Your task to perform on an android device: Open internet settings Image 0: 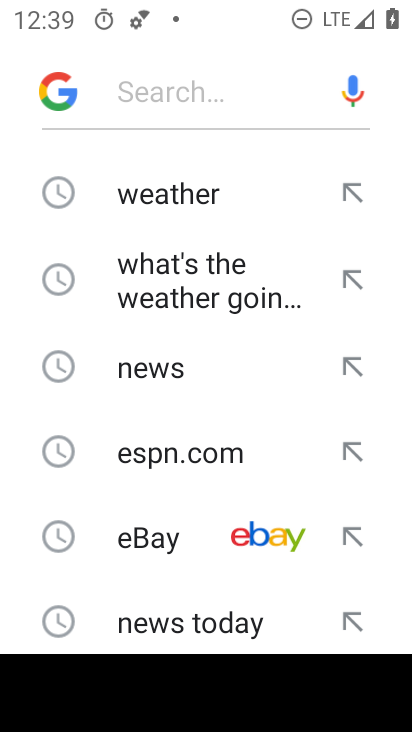
Step 0: press home button
Your task to perform on an android device: Open internet settings Image 1: 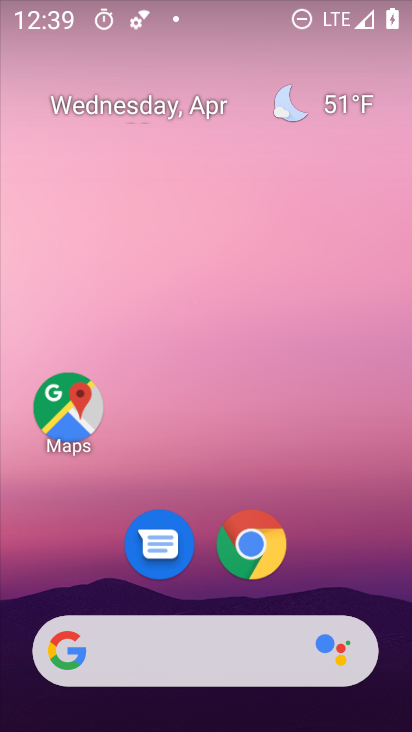
Step 1: drag from (346, 550) to (347, 144)
Your task to perform on an android device: Open internet settings Image 2: 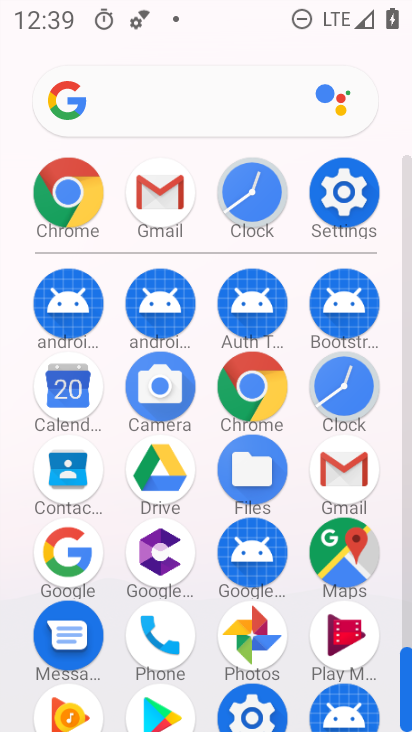
Step 2: click (348, 200)
Your task to perform on an android device: Open internet settings Image 3: 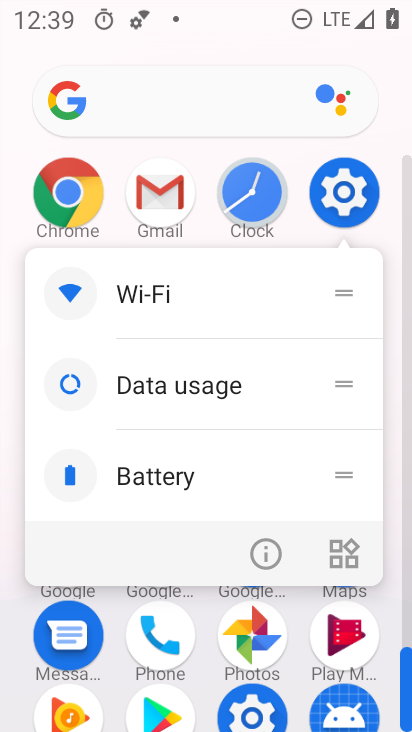
Step 3: click (331, 196)
Your task to perform on an android device: Open internet settings Image 4: 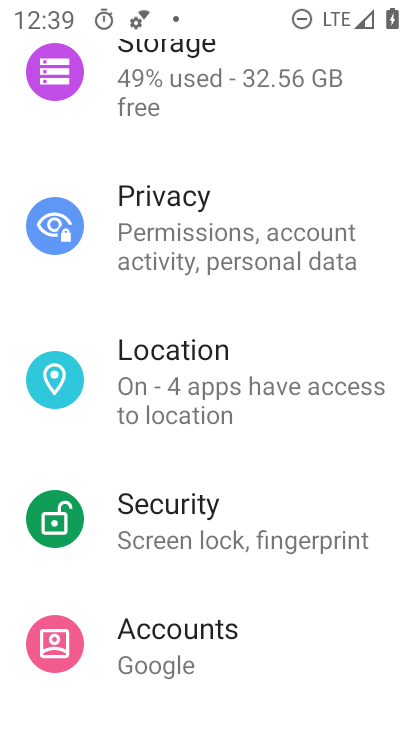
Step 4: drag from (358, 528) to (358, 453)
Your task to perform on an android device: Open internet settings Image 5: 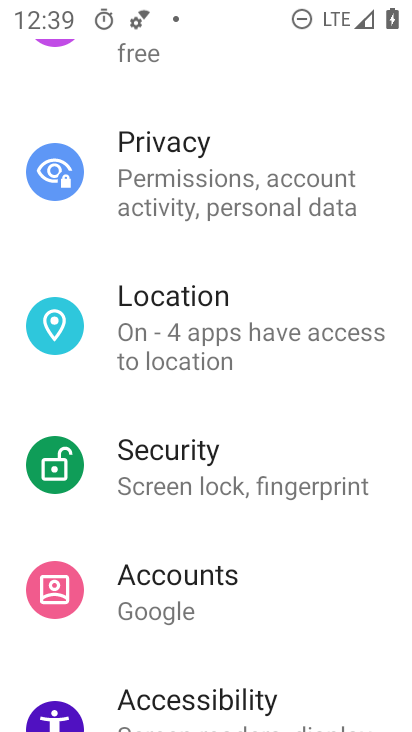
Step 5: drag from (359, 626) to (370, 438)
Your task to perform on an android device: Open internet settings Image 6: 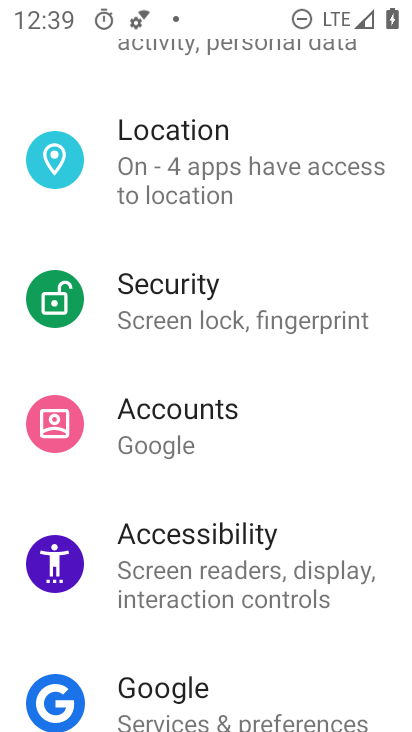
Step 6: drag from (371, 631) to (373, 441)
Your task to perform on an android device: Open internet settings Image 7: 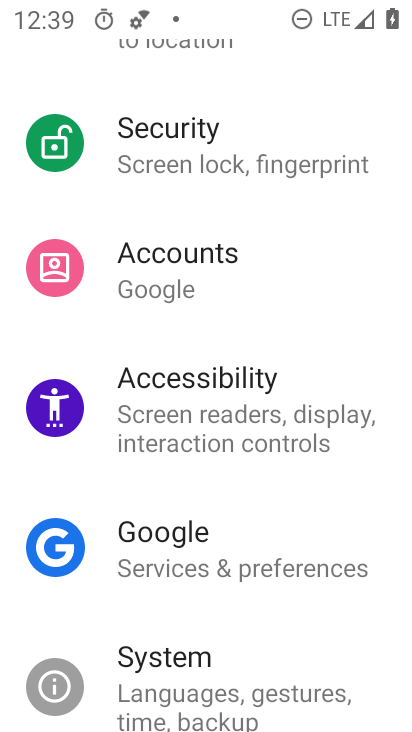
Step 7: drag from (362, 624) to (345, 439)
Your task to perform on an android device: Open internet settings Image 8: 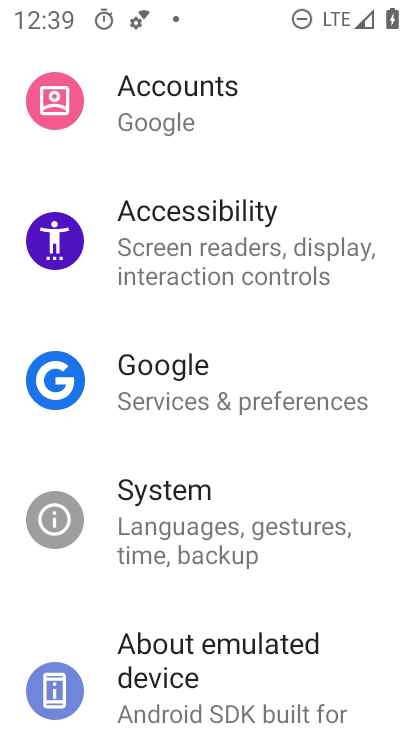
Step 8: drag from (359, 628) to (371, 455)
Your task to perform on an android device: Open internet settings Image 9: 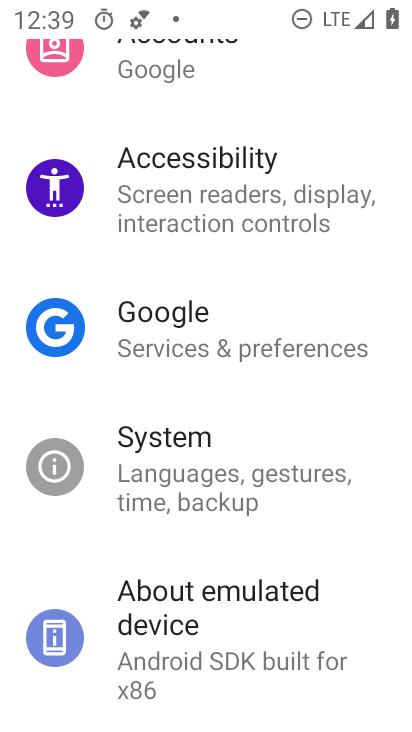
Step 9: drag from (374, 646) to (377, 429)
Your task to perform on an android device: Open internet settings Image 10: 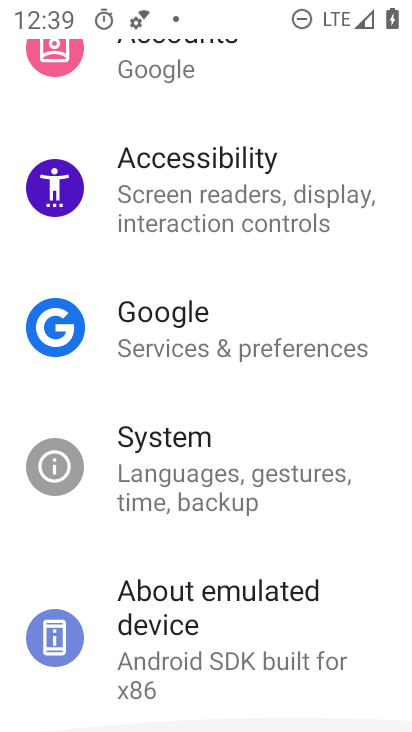
Step 10: drag from (377, 381) to (377, 507)
Your task to perform on an android device: Open internet settings Image 11: 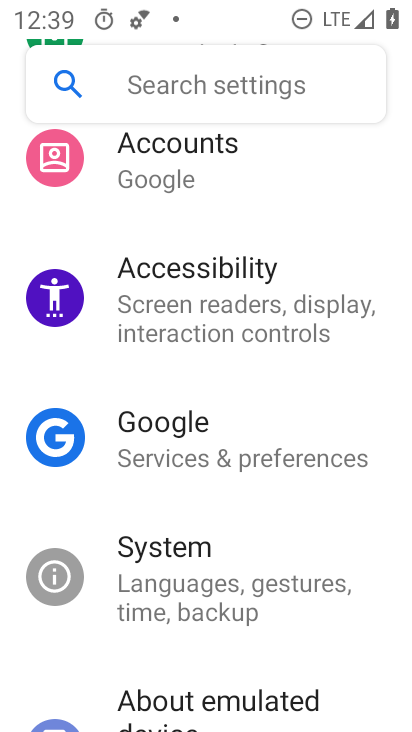
Step 11: drag from (379, 376) to (383, 526)
Your task to perform on an android device: Open internet settings Image 12: 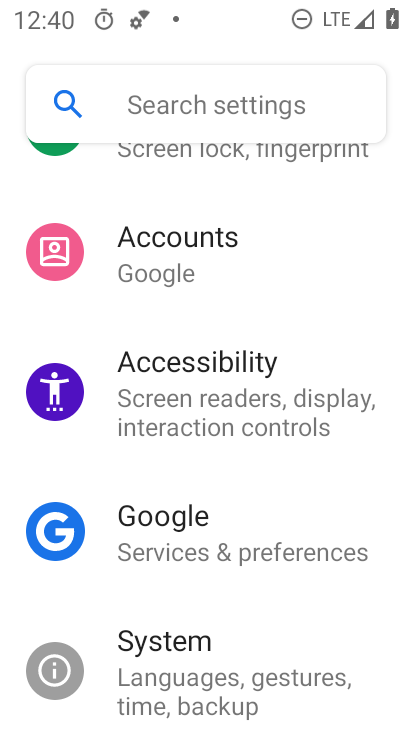
Step 12: drag from (389, 355) to (388, 505)
Your task to perform on an android device: Open internet settings Image 13: 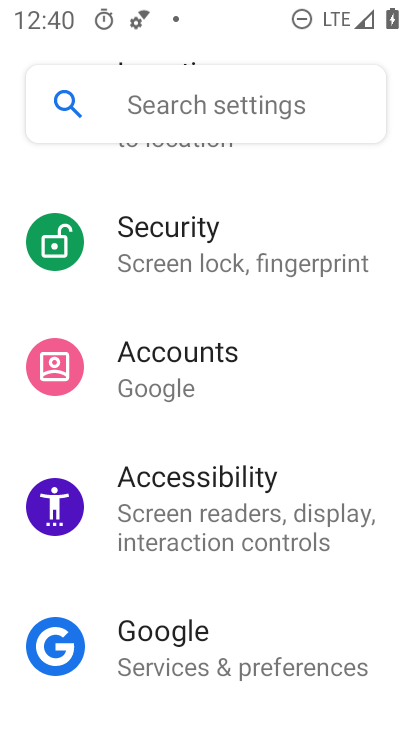
Step 13: drag from (376, 342) to (380, 493)
Your task to perform on an android device: Open internet settings Image 14: 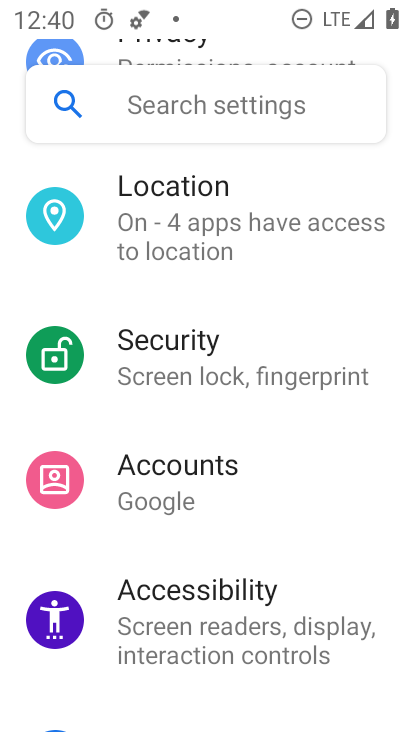
Step 14: drag from (392, 321) to (386, 473)
Your task to perform on an android device: Open internet settings Image 15: 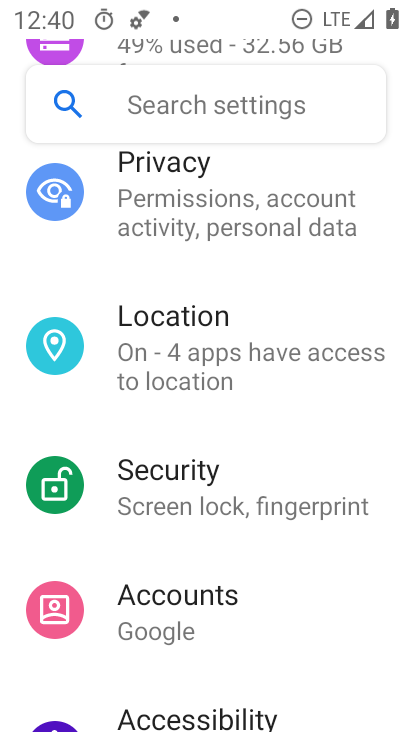
Step 15: drag from (389, 287) to (391, 446)
Your task to perform on an android device: Open internet settings Image 16: 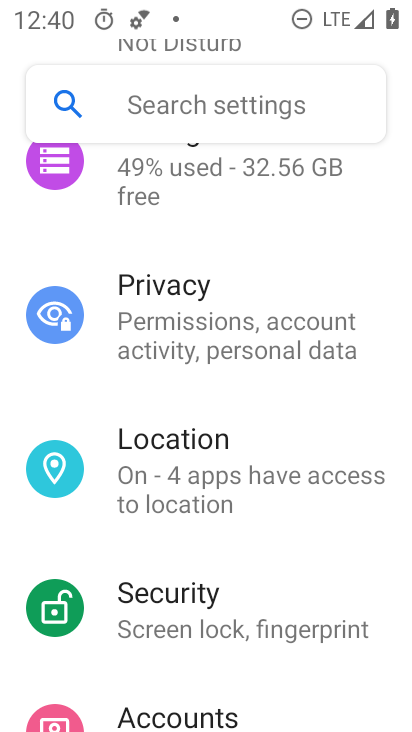
Step 16: drag from (389, 273) to (393, 438)
Your task to perform on an android device: Open internet settings Image 17: 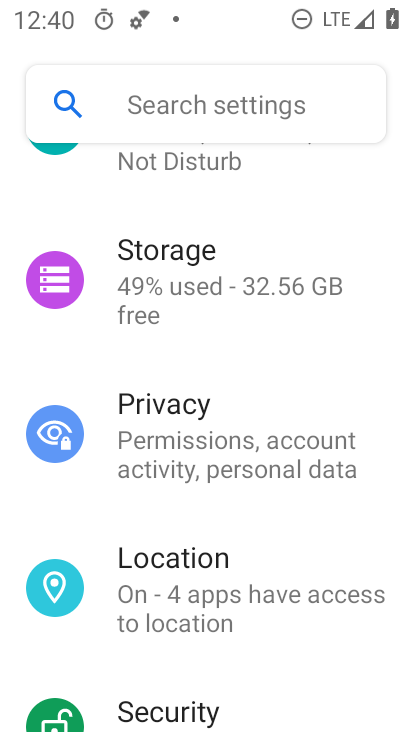
Step 17: drag from (382, 276) to (379, 447)
Your task to perform on an android device: Open internet settings Image 18: 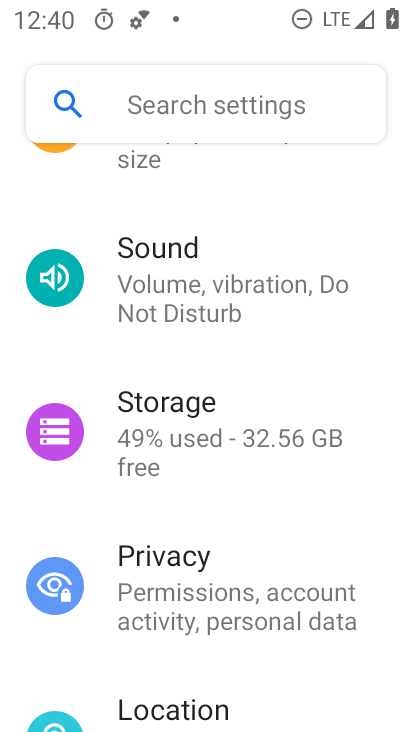
Step 18: drag from (377, 281) to (381, 435)
Your task to perform on an android device: Open internet settings Image 19: 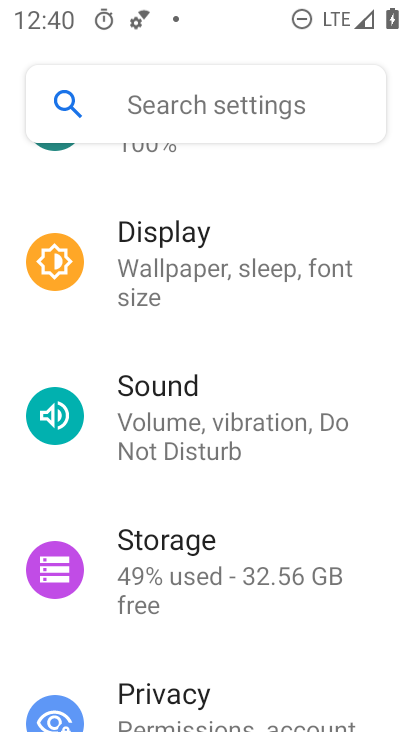
Step 19: drag from (386, 273) to (379, 394)
Your task to perform on an android device: Open internet settings Image 20: 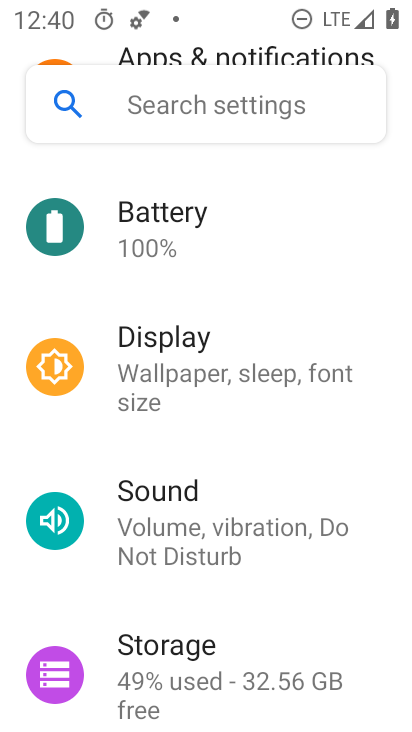
Step 20: drag from (380, 299) to (377, 438)
Your task to perform on an android device: Open internet settings Image 21: 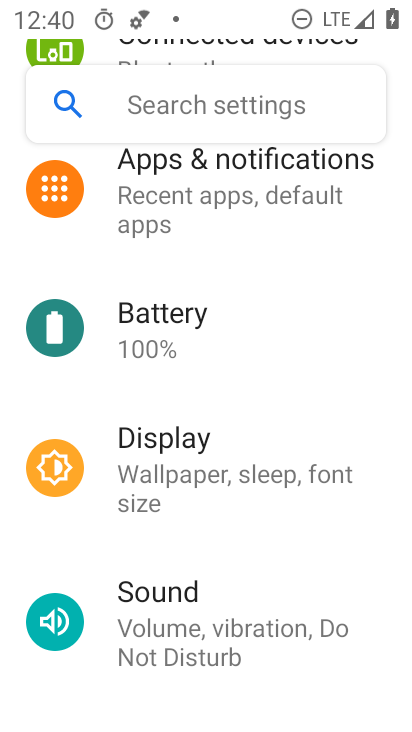
Step 21: drag from (370, 267) to (368, 431)
Your task to perform on an android device: Open internet settings Image 22: 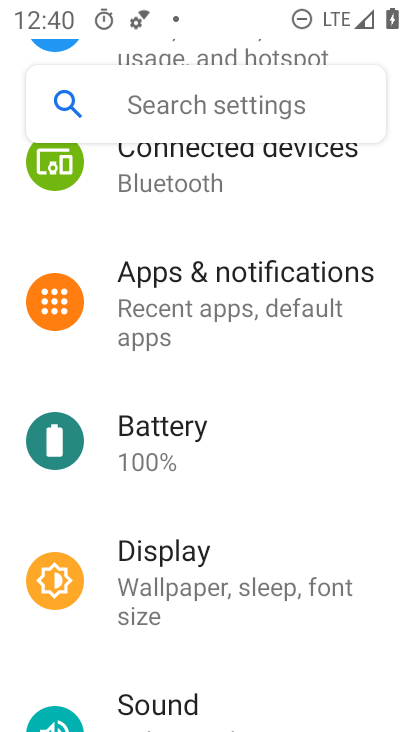
Step 22: drag from (386, 246) to (388, 416)
Your task to perform on an android device: Open internet settings Image 23: 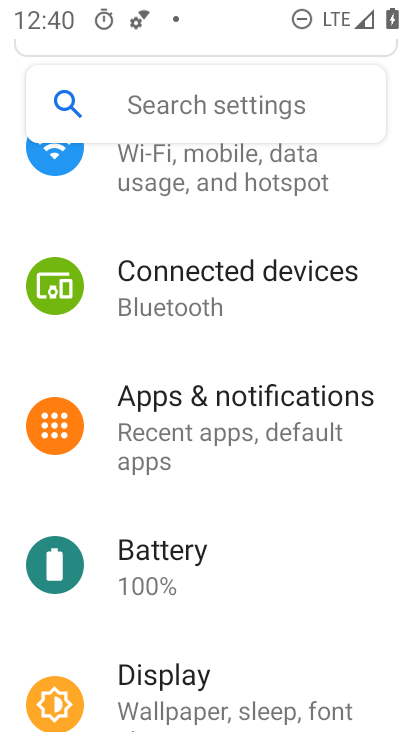
Step 23: drag from (391, 262) to (393, 426)
Your task to perform on an android device: Open internet settings Image 24: 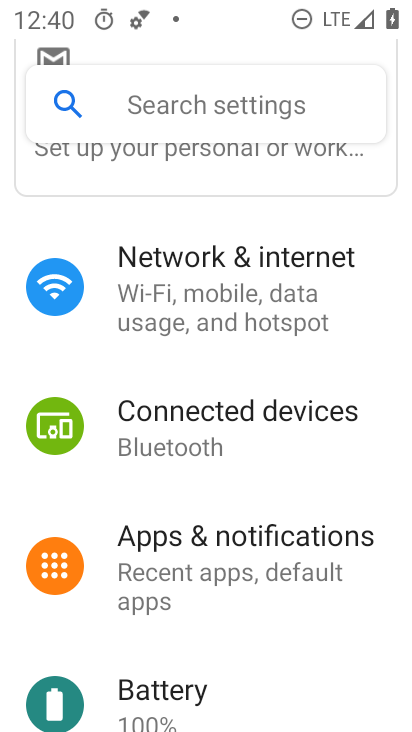
Step 24: drag from (383, 290) to (385, 407)
Your task to perform on an android device: Open internet settings Image 25: 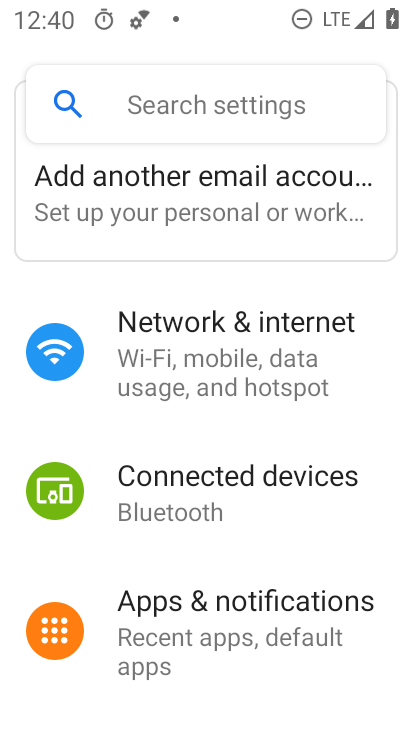
Step 25: drag from (378, 298) to (385, 424)
Your task to perform on an android device: Open internet settings Image 26: 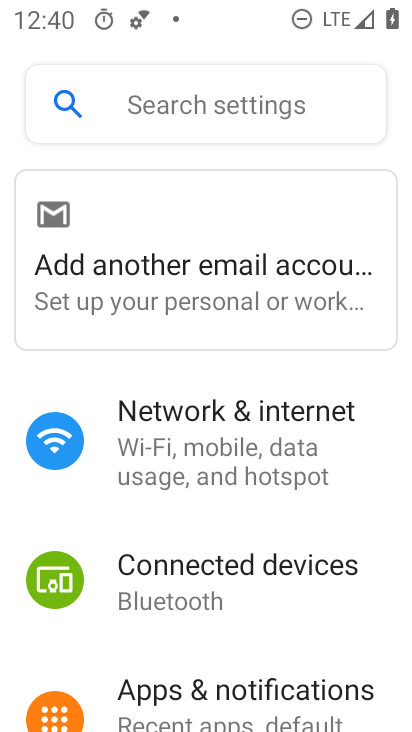
Step 26: click (254, 435)
Your task to perform on an android device: Open internet settings Image 27: 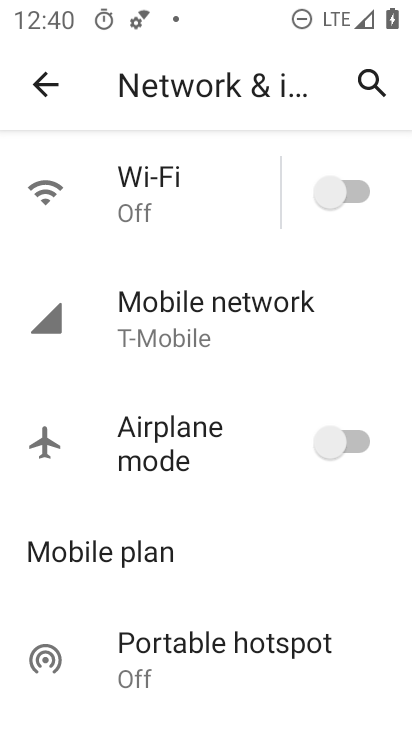
Step 27: task complete